Your task to perform on an android device: change the upload size in google photos Image 0: 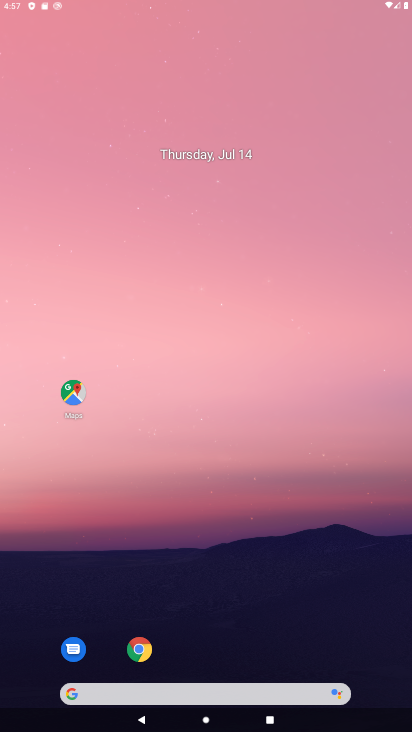
Step 0: drag from (274, 660) to (289, 200)
Your task to perform on an android device: change the upload size in google photos Image 1: 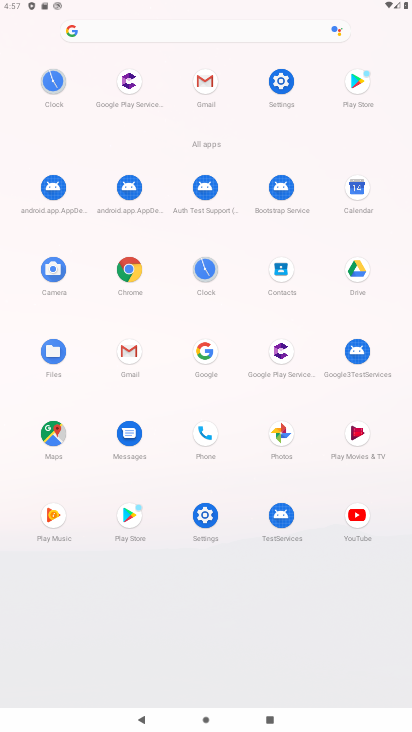
Step 1: click (286, 438)
Your task to perform on an android device: change the upload size in google photos Image 2: 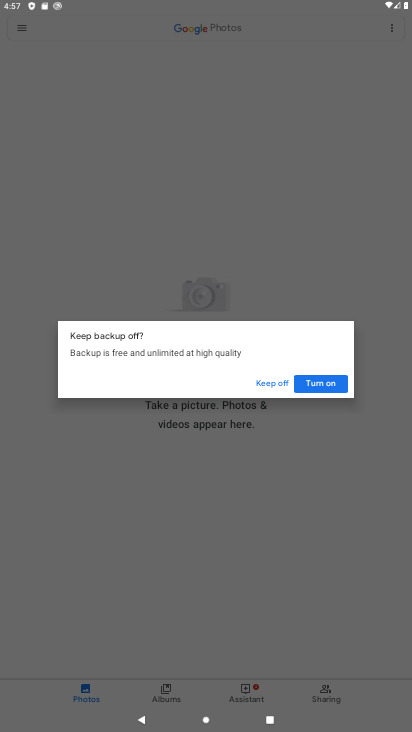
Step 2: click (263, 386)
Your task to perform on an android device: change the upload size in google photos Image 3: 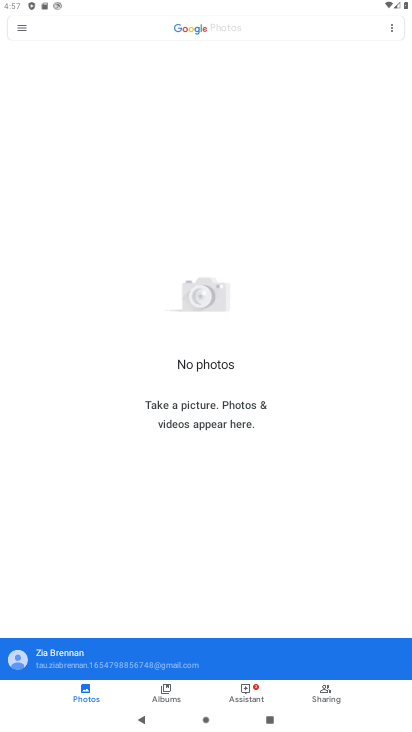
Step 3: click (29, 30)
Your task to perform on an android device: change the upload size in google photos Image 4: 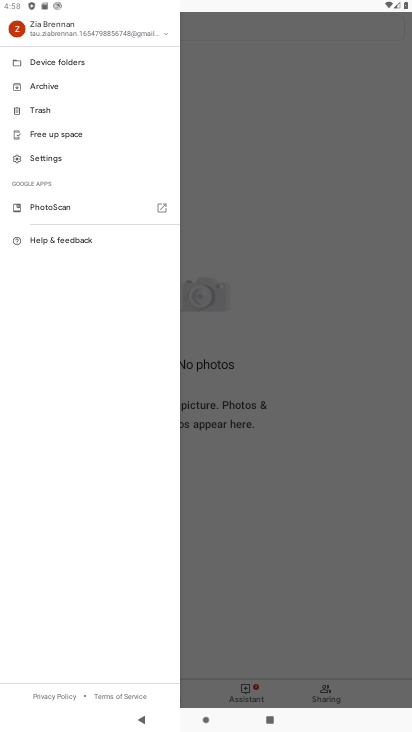
Step 4: click (52, 156)
Your task to perform on an android device: change the upload size in google photos Image 5: 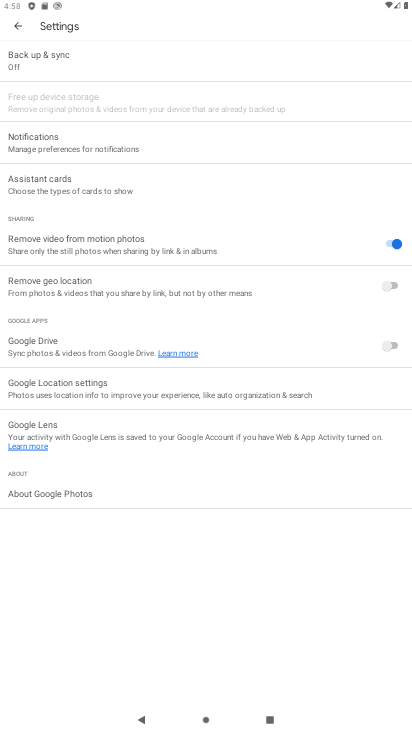
Step 5: click (75, 61)
Your task to perform on an android device: change the upload size in google photos Image 6: 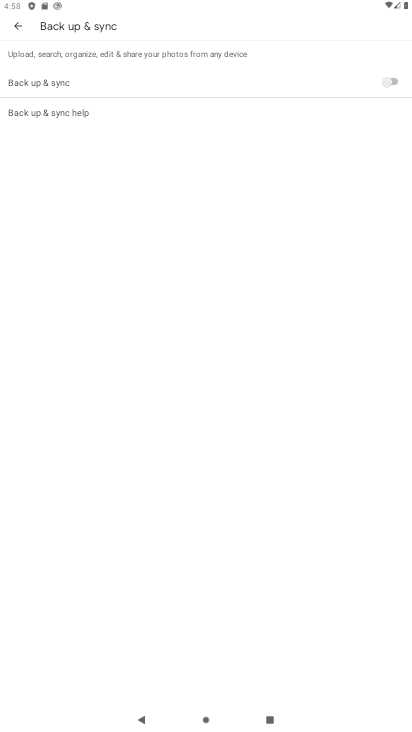
Step 6: task complete